Your task to perform on an android device: Open battery settings Image 0: 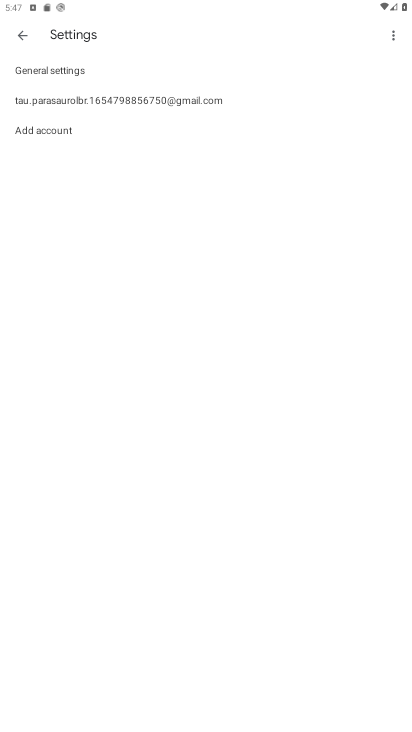
Step 0: press home button
Your task to perform on an android device: Open battery settings Image 1: 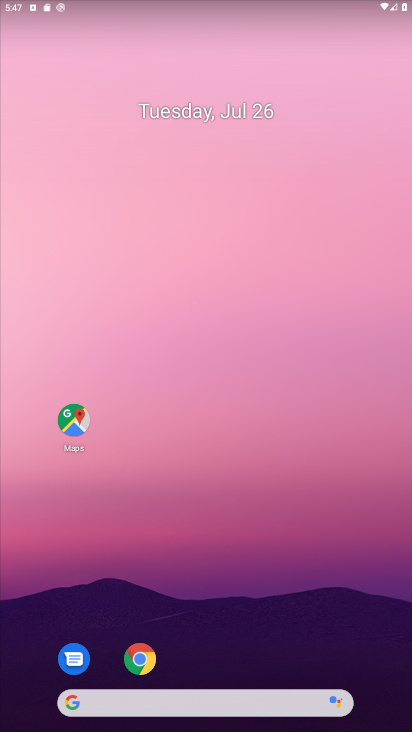
Step 1: drag from (235, 629) to (242, 164)
Your task to perform on an android device: Open battery settings Image 2: 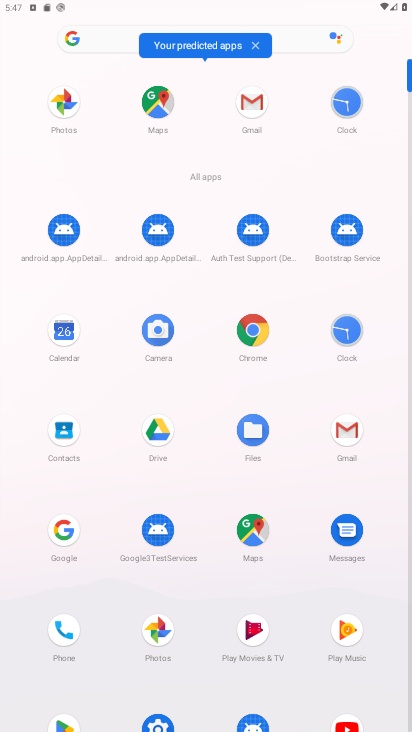
Step 2: click (157, 717)
Your task to perform on an android device: Open battery settings Image 3: 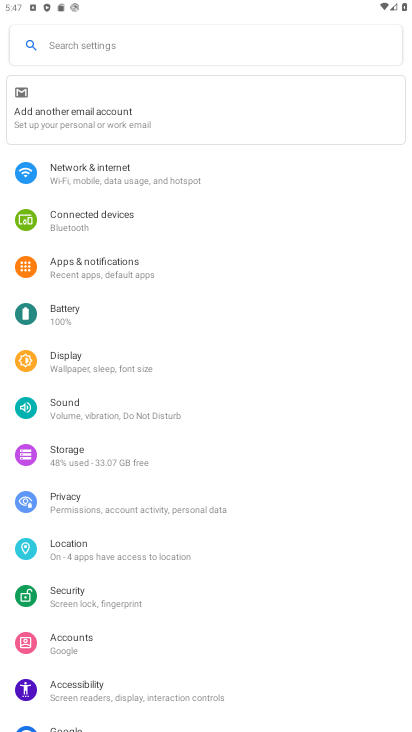
Step 3: click (102, 311)
Your task to perform on an android device: Open battery settings Image 4: 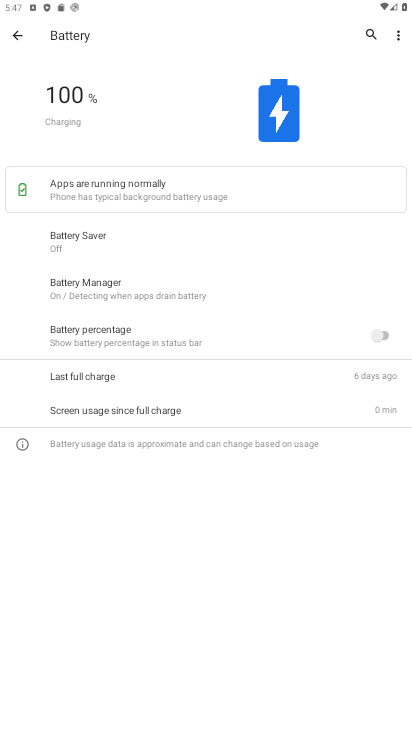
Step 4: task complete